Your task to perform on an android device: Go to Maps Image 0: 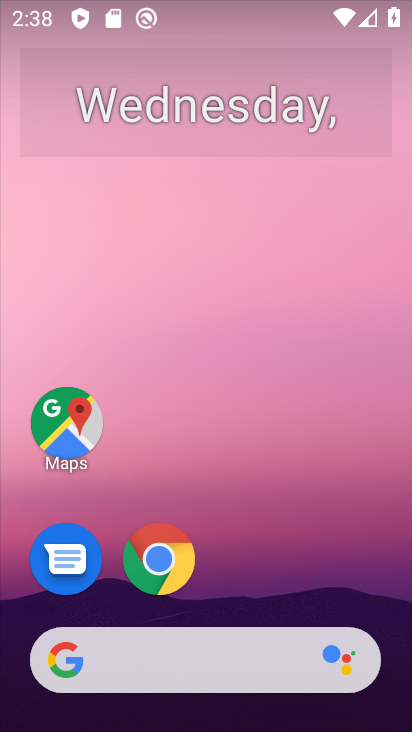
Step 0: click (76, 434)
Your task to perform on an android device: Go to Maps Image 1: 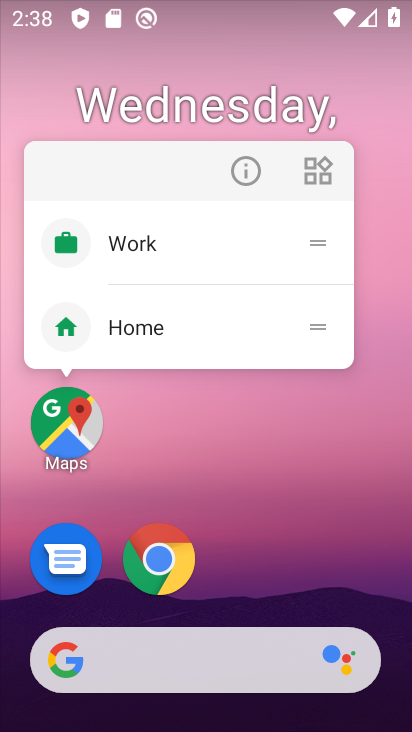
Step 1: click (60, 430)
Your task to perform on an android device: Go to Maps Image 2: 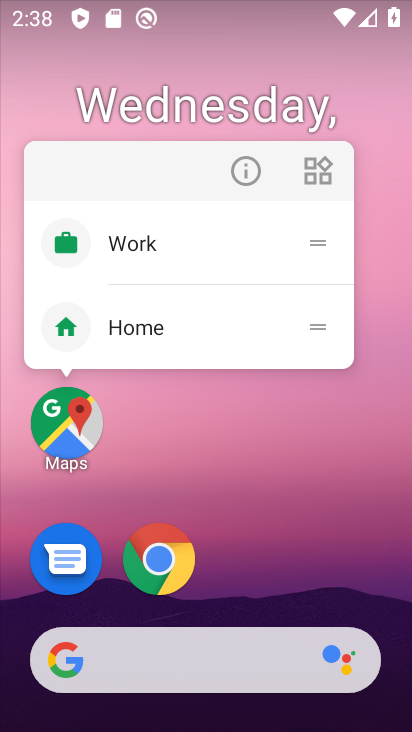
Step 2: click (60, 430)
Your task to perform on an android device: Go to Maps Image 3: 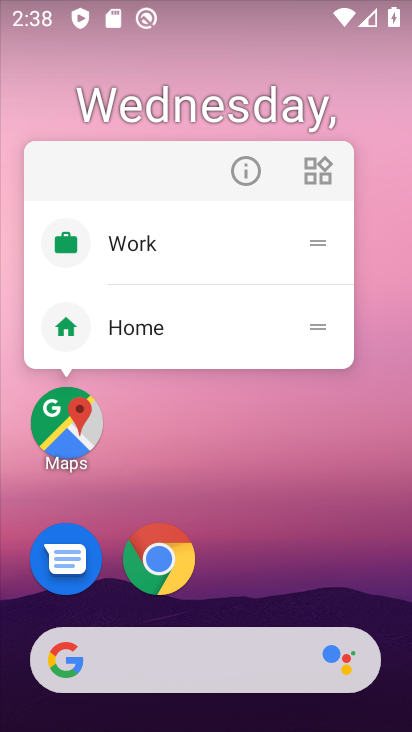
Step 3: click (71, 409)
Your task to perform on an android device: Go to Maps Image 4: 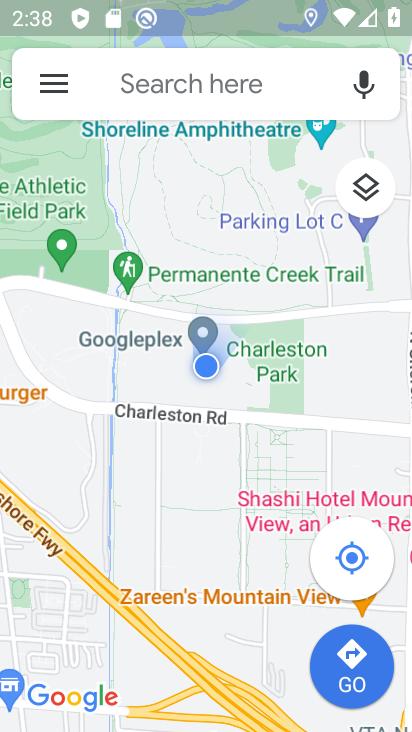
Step 4: task complete